Your task to perform on an android device: Search for Mexican restaurants on Maps Image 0: 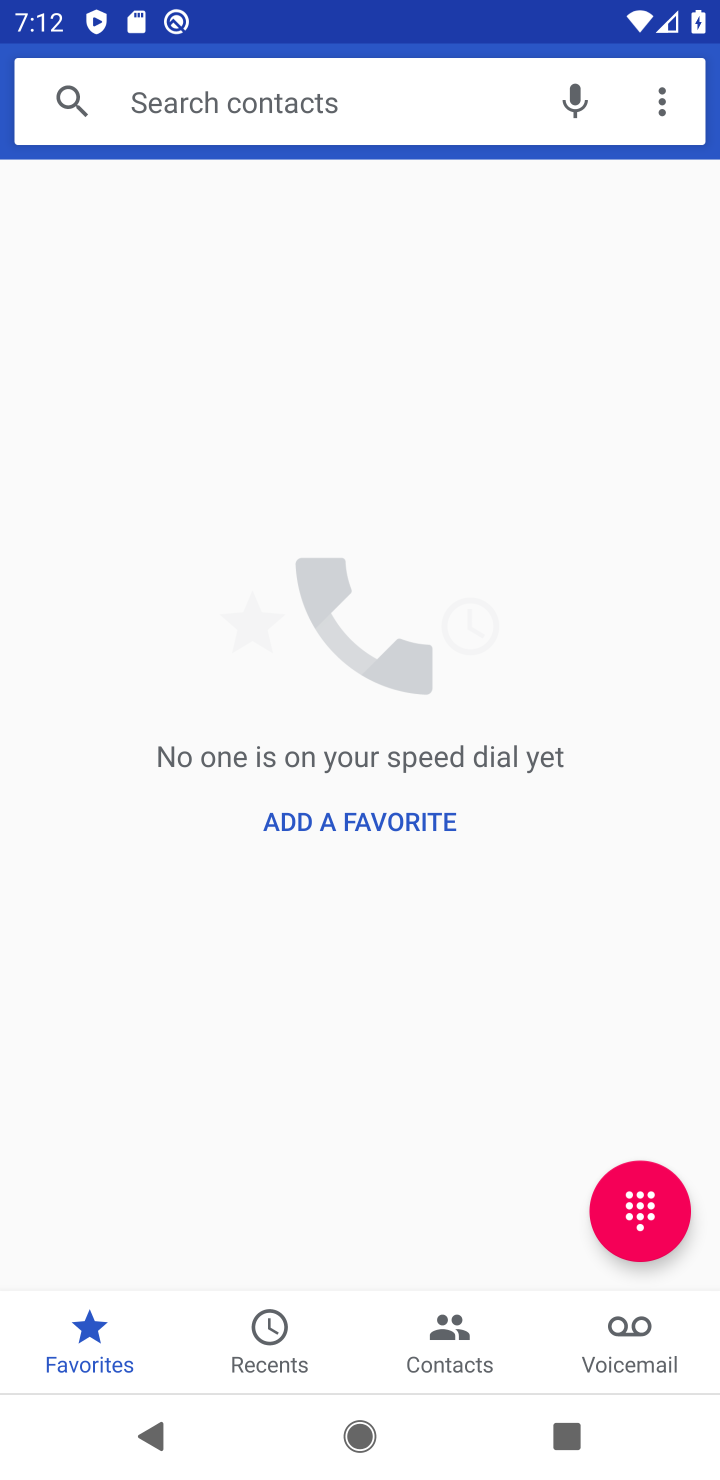
Step 0: press home button
Your task to perform on an android device: Search for Mexican restaurants on Maps Image 1: 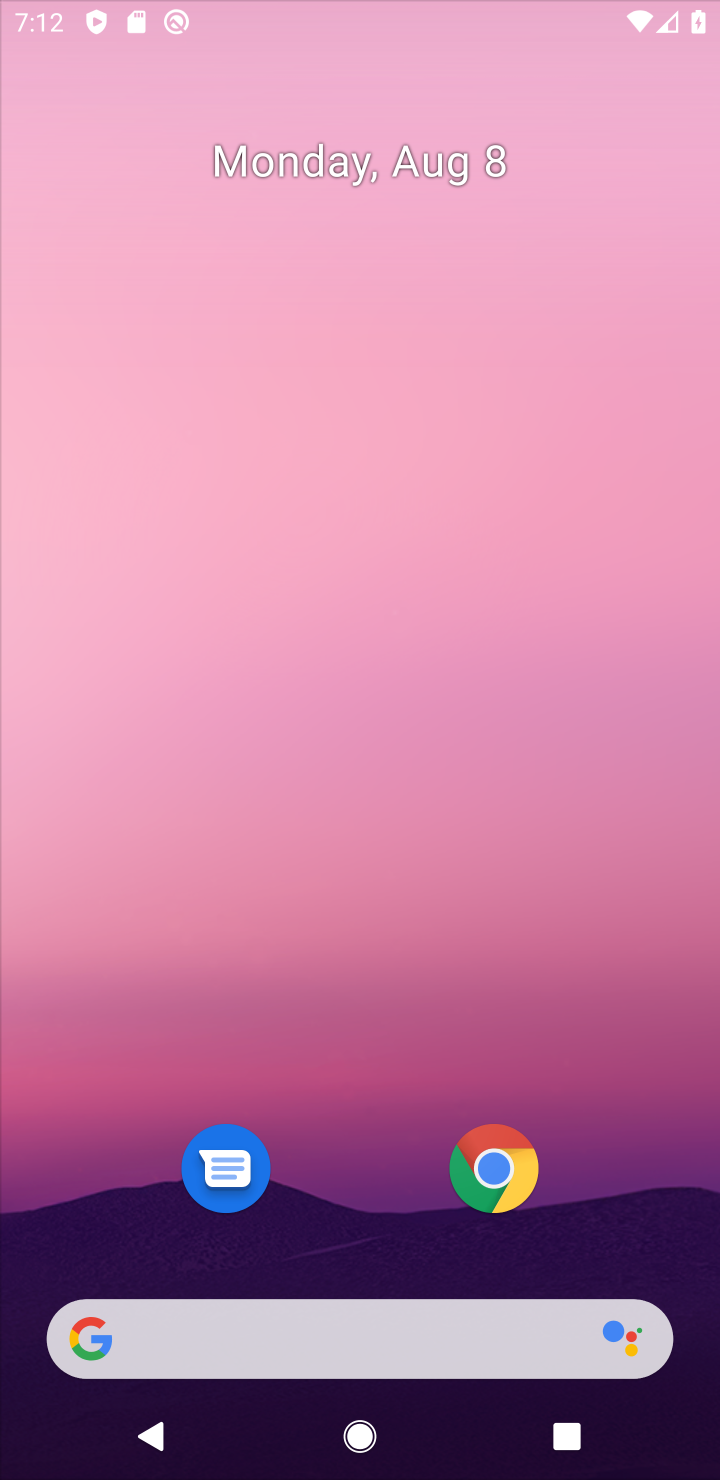
Step 1: drag from (659, 1231) to (485, 156)
Your task to perform on an android device: Search for Mexican restaurants on Maps Image 2: 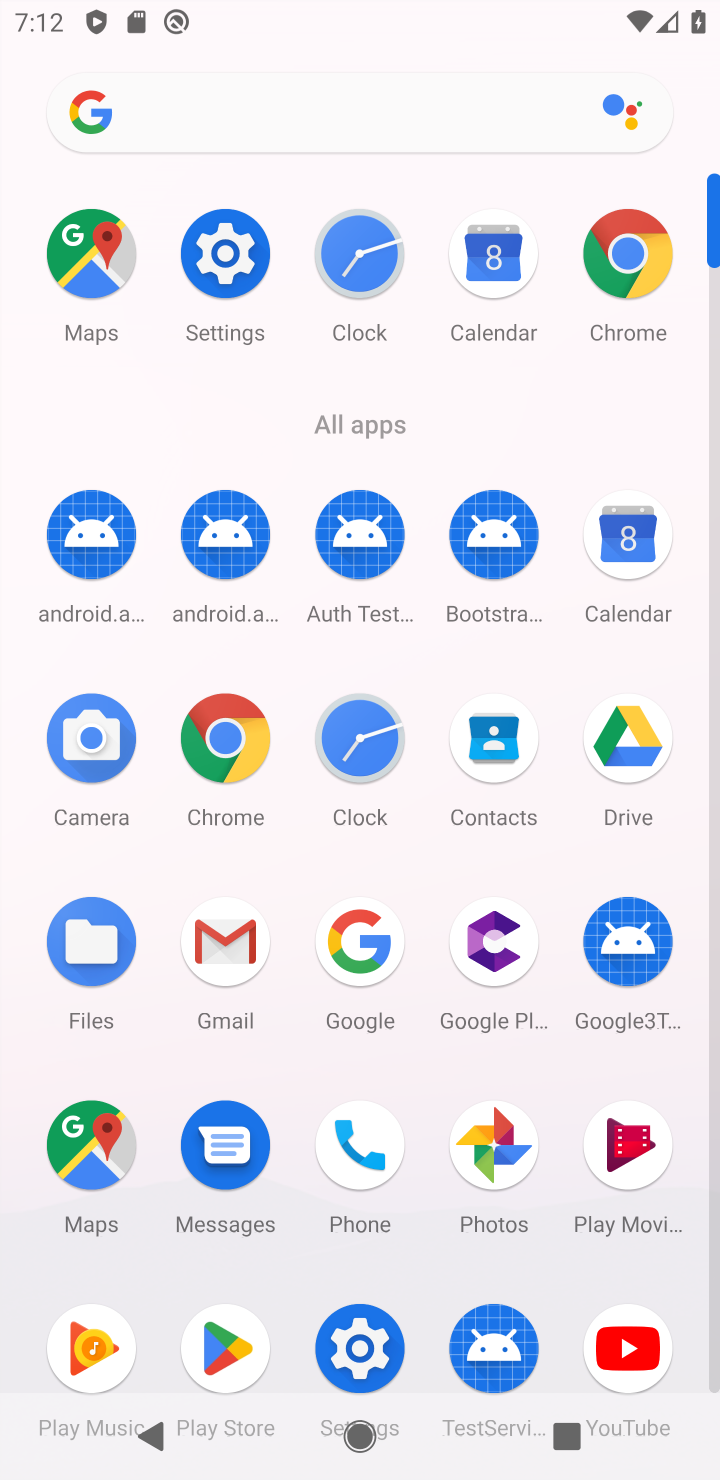
Step 2: click (65, 1120)
Your task to perform on an android device: Search for Mexican restaurants on Maps Image 3: 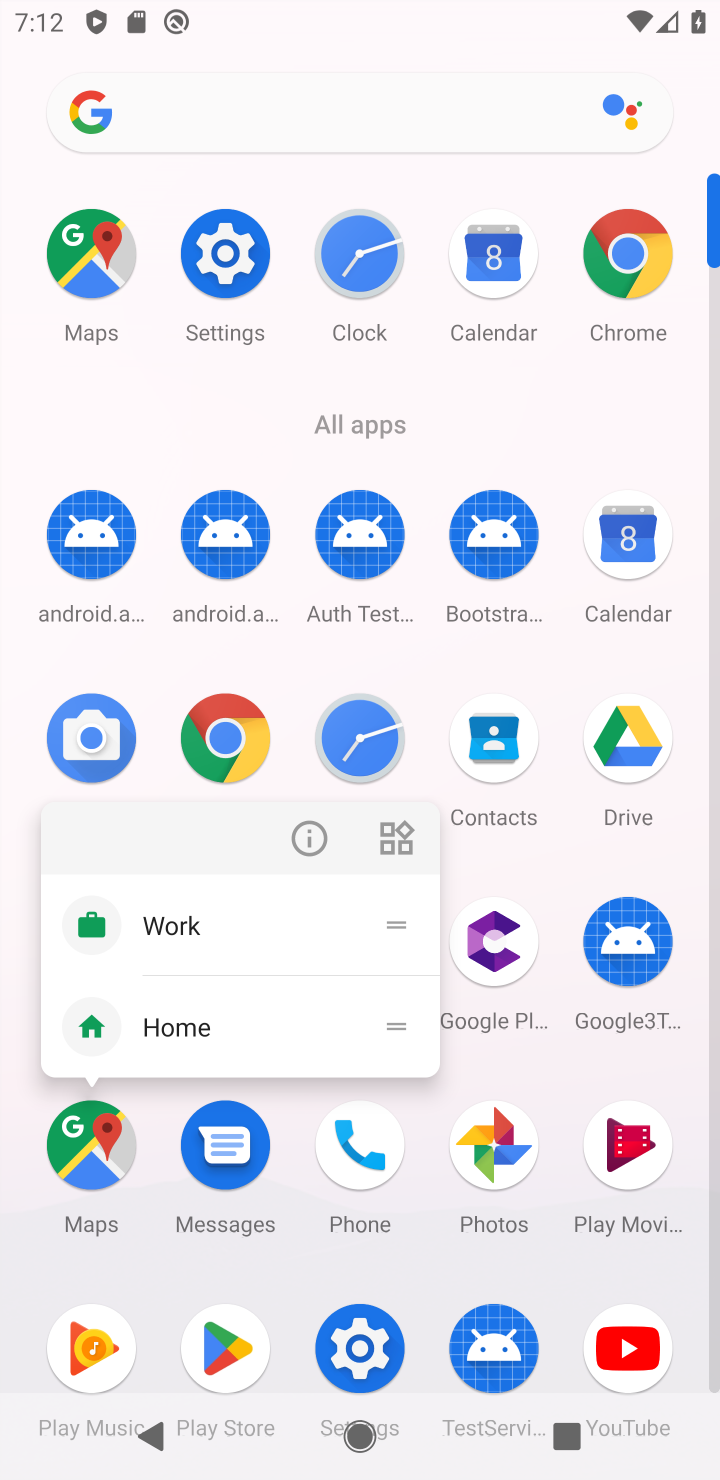
Step 3: click (65, 1120)
Your task to perform on an android device: Search for Mexican restaurants on Maps Image 4: 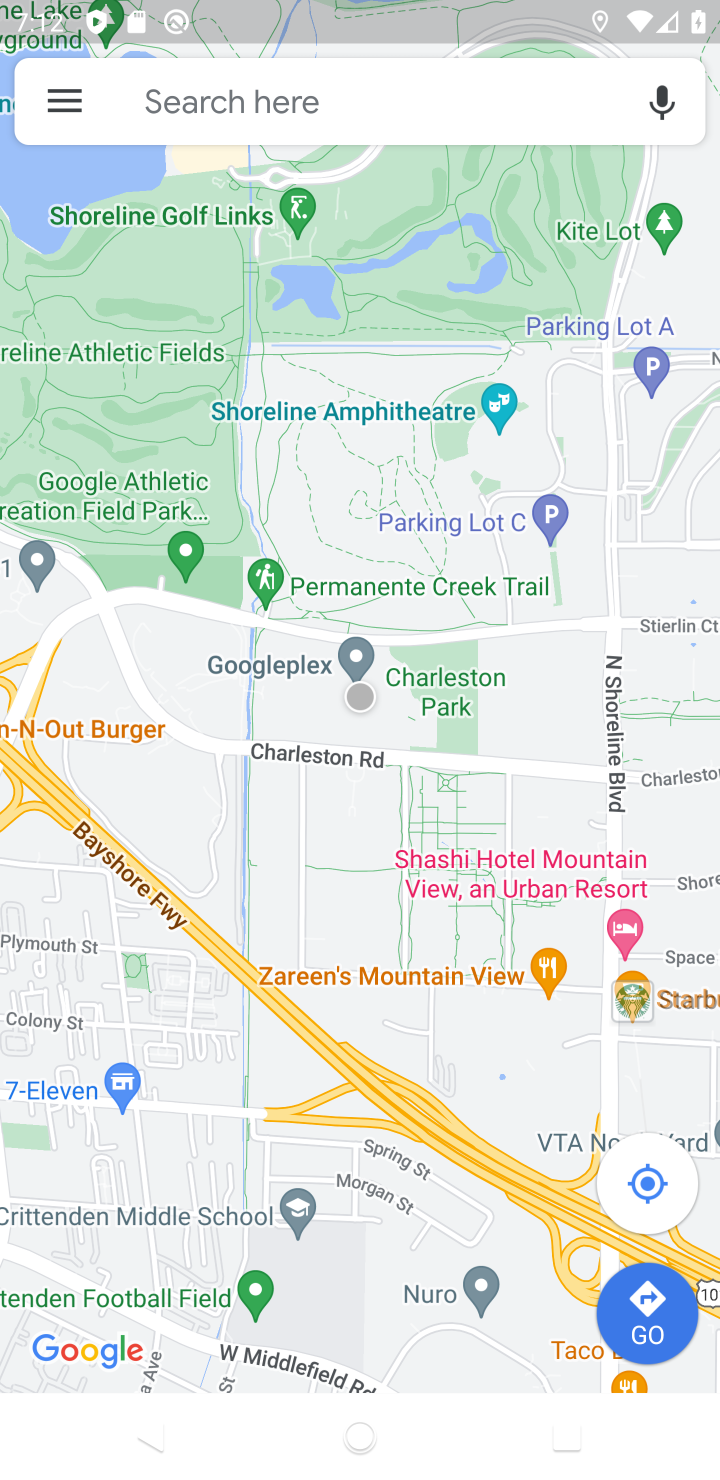
Step 4: click (246, 103)
Your task to perform on an android device: Search for Mexican restaurants on Maps Image 5: 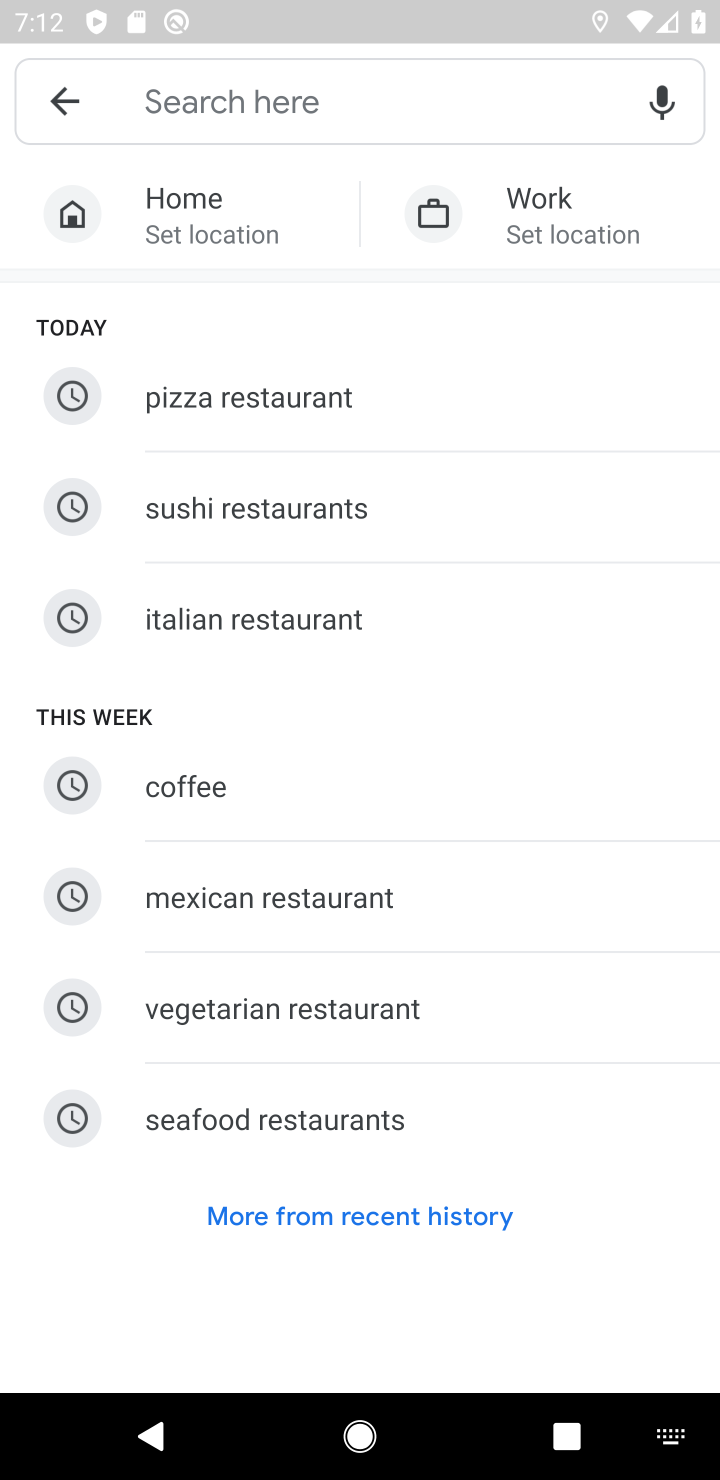
Step 5: click (413, 920)
Your task to perform on an android device: Search for Mexican restaurants on Maps Image 6: 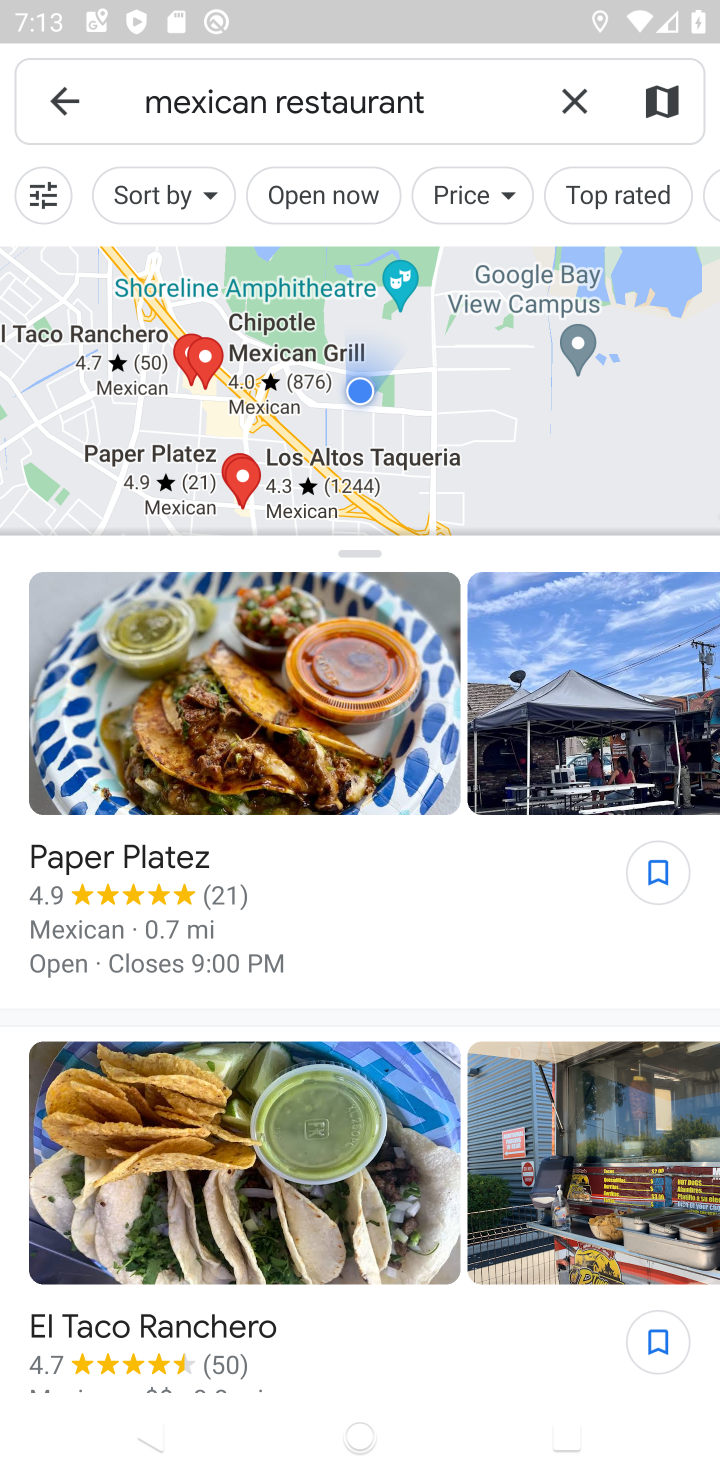
Step 6: task complete